Your task to perform on an android device: Open calendar and show me the fourth week of next month Image 0: 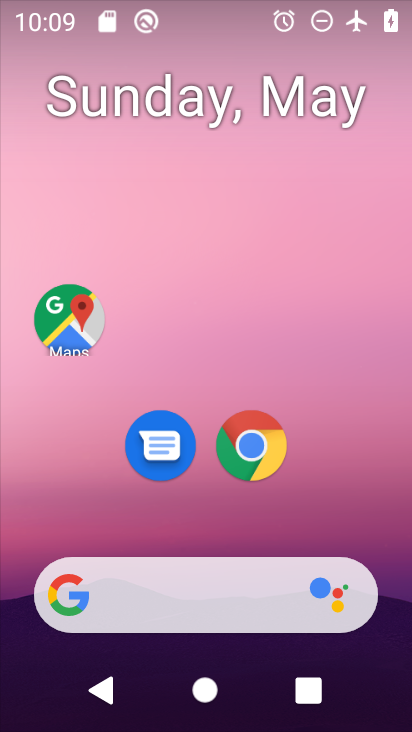
Step 0: drag from (223, 652) to (245, 246)
Your task to perform on an android device: Open calendar and show me the fourth week of next month Image 1: 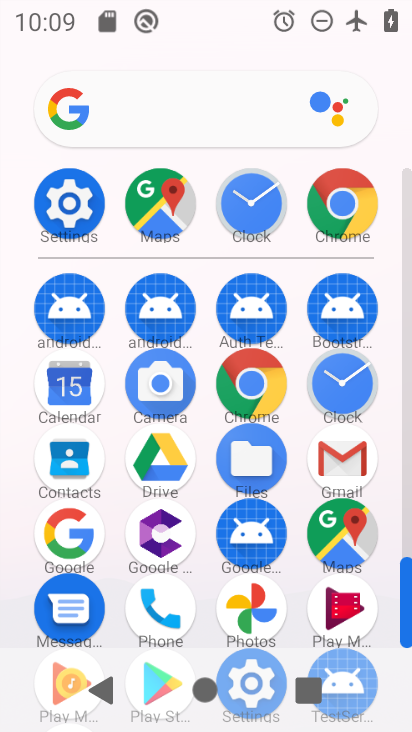
Step 1: click (86, 399)
Your task to perform on an android device: Open calendar and show me the fourth week of next month Image 2: 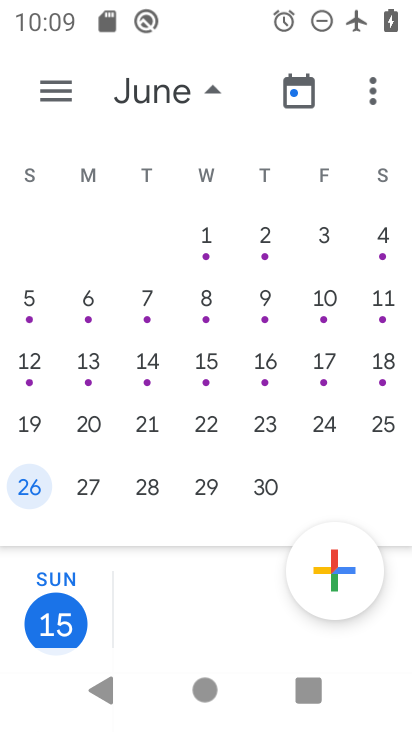
Step 2: task complete